Your task to perform on an android device: toggle notification dots Image 0: 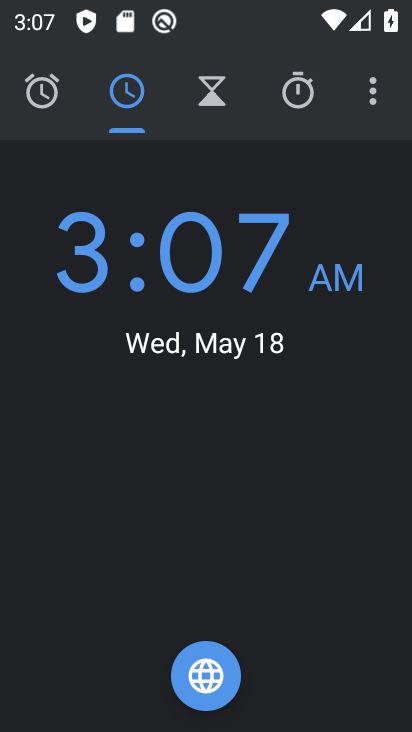
Step 0: press back button
Your task to perform on an android device: toggle notification dots Image 1: 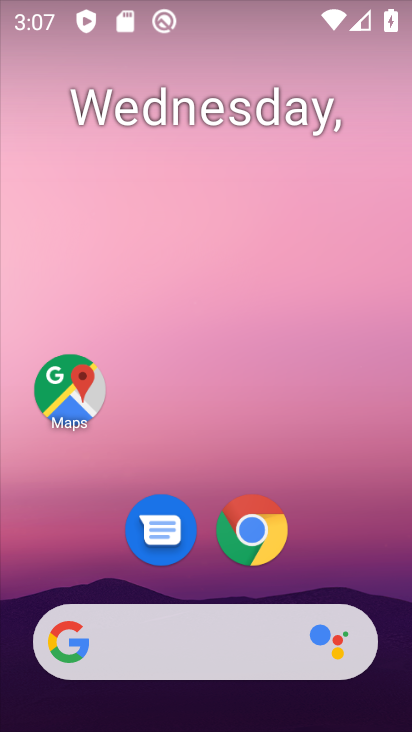
Step 1: click (243, 124)
Your task to perform on an android device: toggle notification dots Image 2: 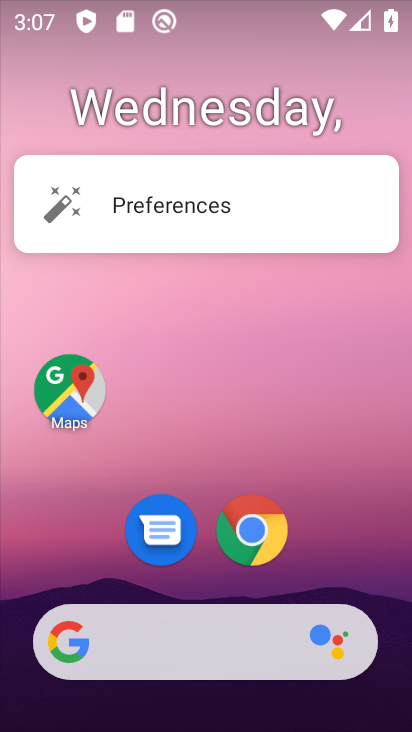
Step 2: drag from (235, 452) to (217, 192)
Your task to perform on an android device: toggle notification dots Image 3: 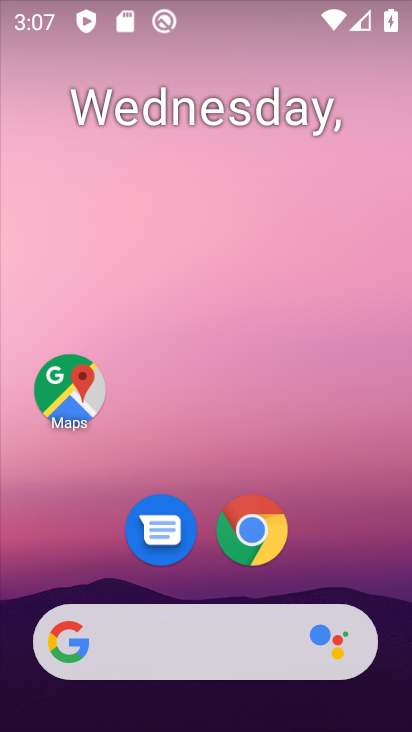
Step 3: drag from (271, 555) to (218, 220)
Your task to perform on an android device: toggle notification dots Image 4: 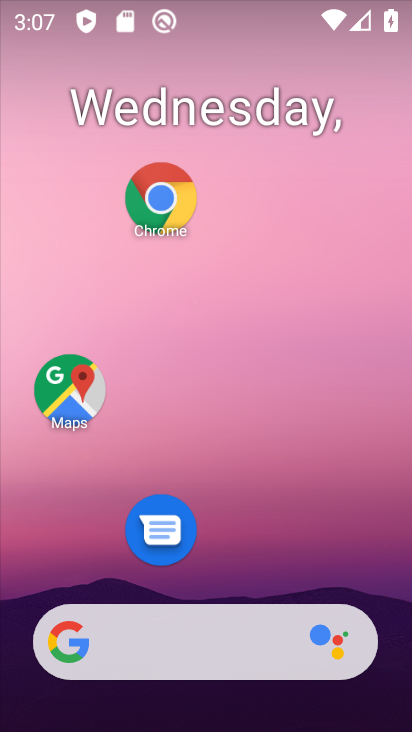
Step 4: drag from (279, 636) to (155, 28)
Your task to perform on an android device: toggle notification dots Image 5: 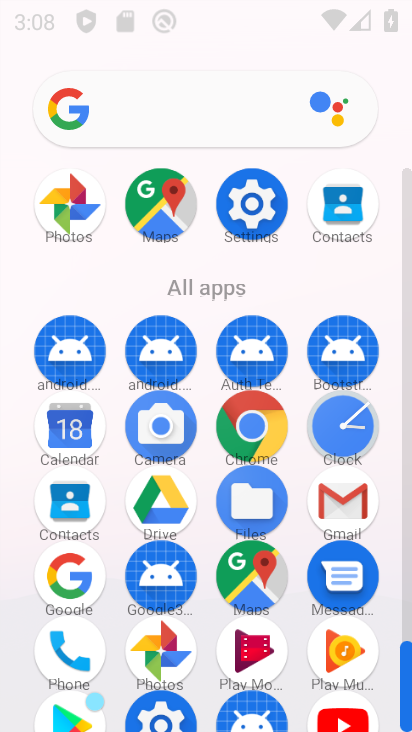
Step 5: drag from (168, 336) to (109, 120)
Your task to perform on an android device: toggle notification dots Image 6: 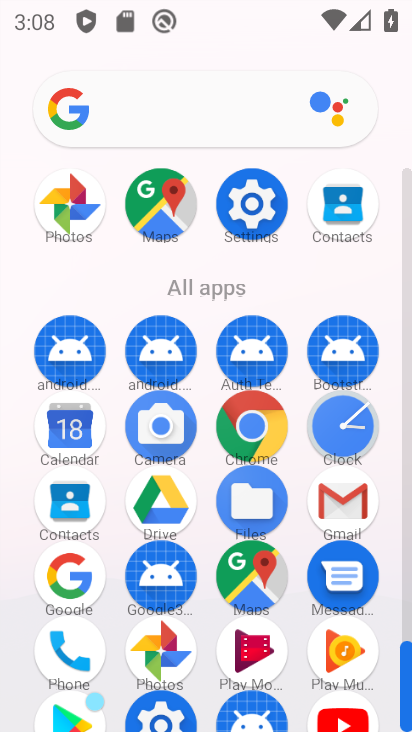
Step 6: click (247, 199)
Your task to perform on an android device: toggle notification dots Image 7: 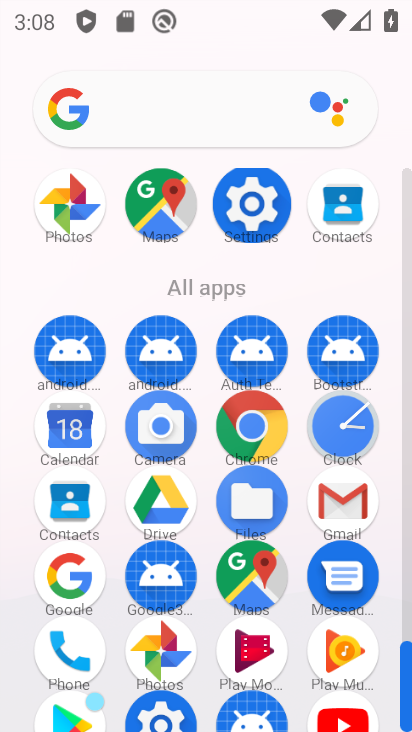
Step 7: click (249, 198)
Your task to perform on an android device: toggle notification dots Image 8: 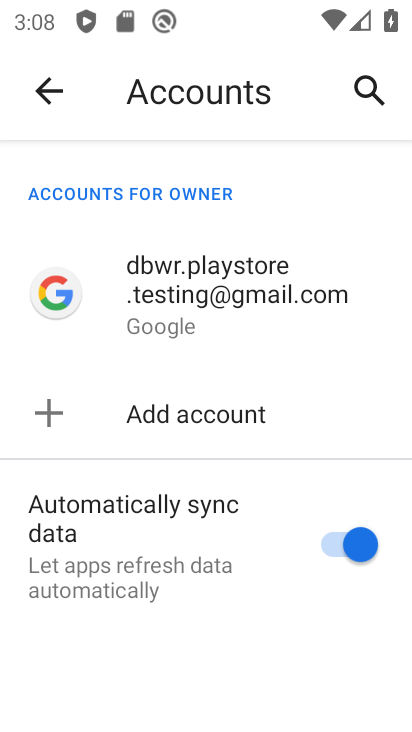
Step 8: click (249, 198)
Your task to perform on an android device: toggle notification dots Image 9: 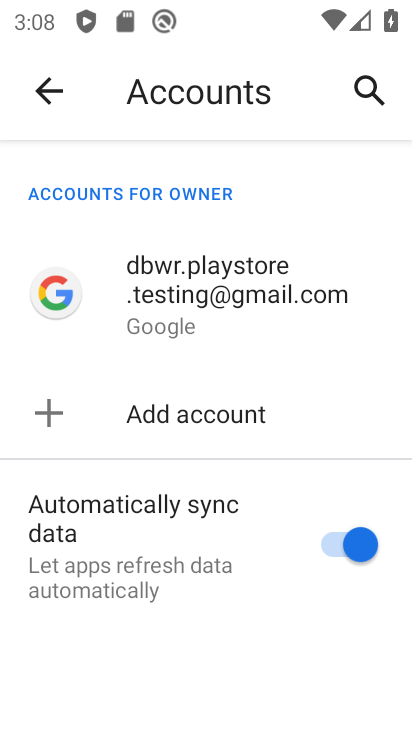
Step 9: click (31, 82)
Your task to perform on an android device: toggle notification dots Image 10: 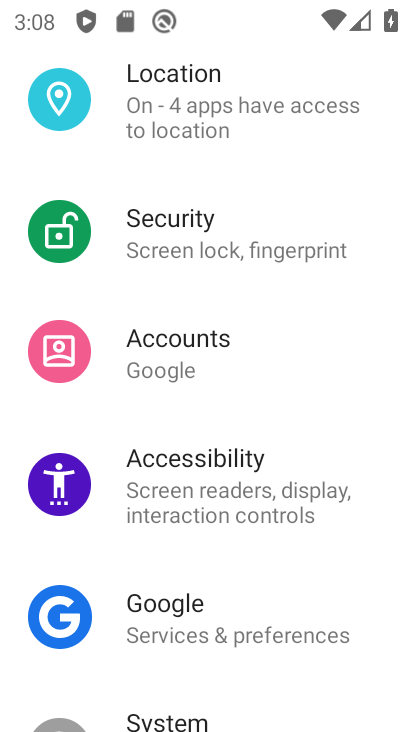
Step 10: drag from (201, 173) to (248, 474)
Your task to perform on an android device: toggle notification dots Image 11: 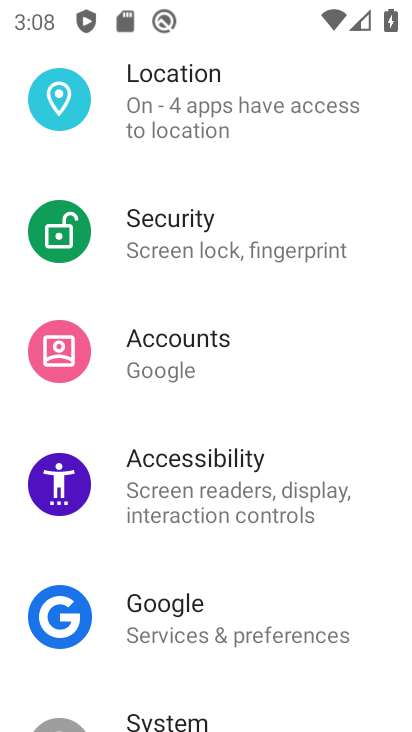
Step 11: drag from (235, 249) to (279, 553)
Your task to perform on an android device: toggle notification dots Image 12: 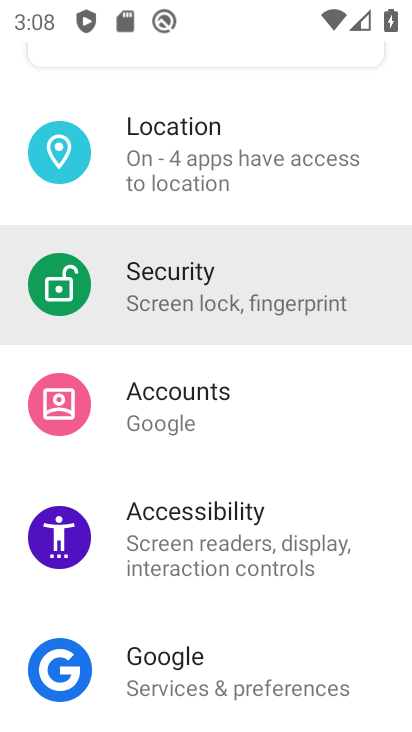
Step 12: drag from (225, 226) to (213, 592)
Your task to perform on an android device: toggle notification dots Image 13: 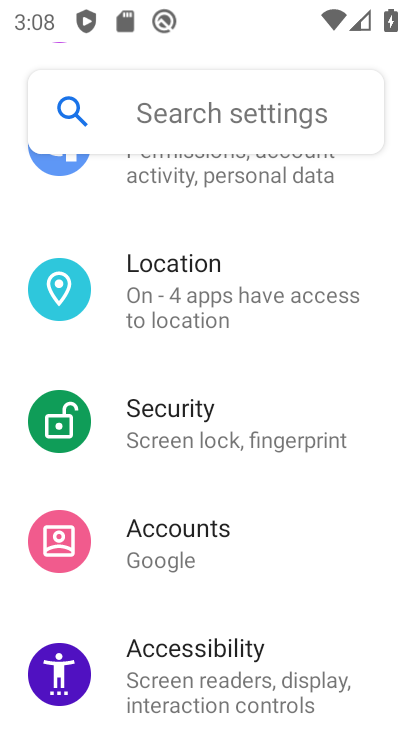
Step 13: drag from (185, 272) to (258, 514)
Your task to perform on an android device: toggle notification dots Image 14: 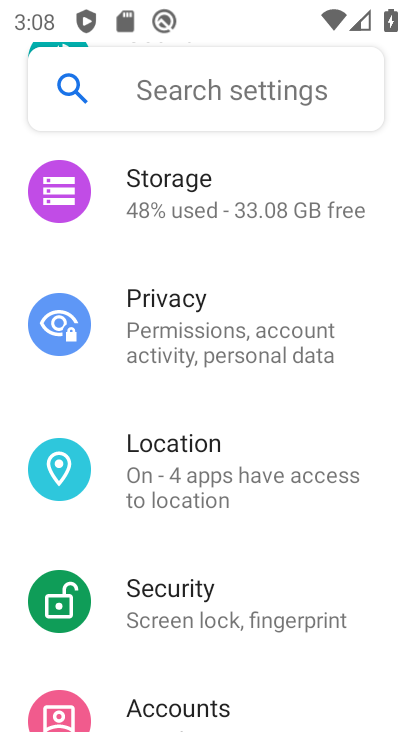
Step 14: drag from (239, 606) to (180, 665)
Your task to perform on an android device: toggle notification dots Image 15: 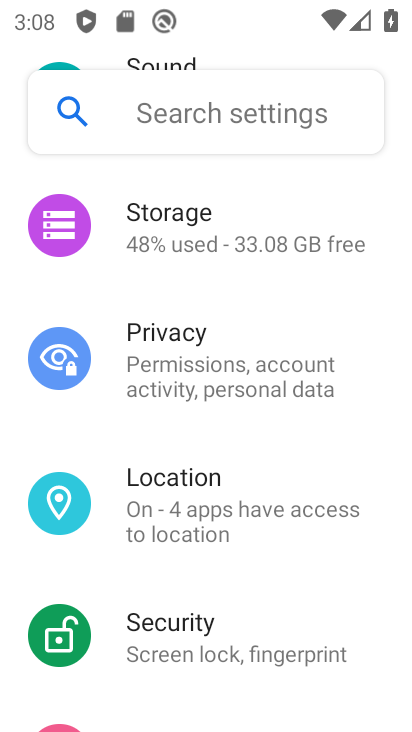
Step 15: drag from (200, 484) to (233, 635)
Your task to perform on an android device: toggle notification dots Image 16: 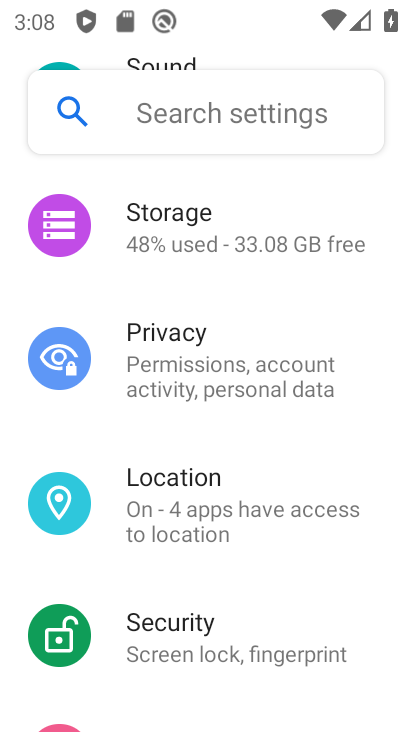
Step 16: drag from (209, 299) to (254, 611)
Your task to perform on an android device: toggle notification dots Image 17: 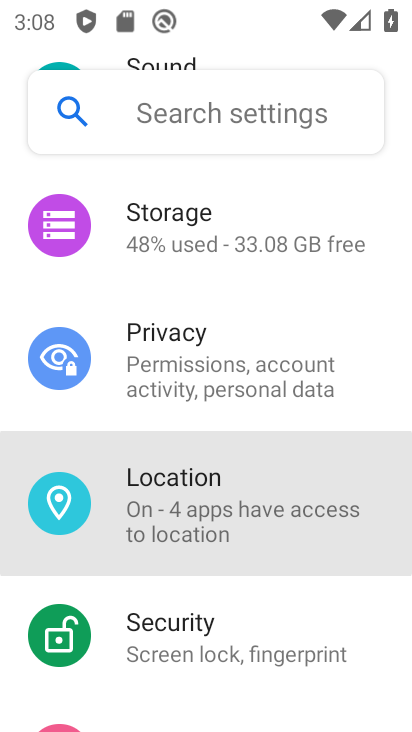
Step 17: drag from (247, 475) to (195, 488)
Your task to perform on an android device: toggle notification dots Image 18: 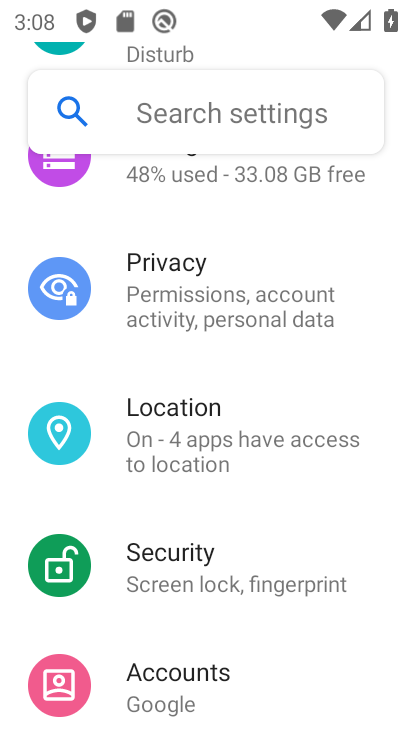
Step 18: drag from (220, 355) to (212, 525)
Your task to perform on an android device: toggle notification dots Image 19: 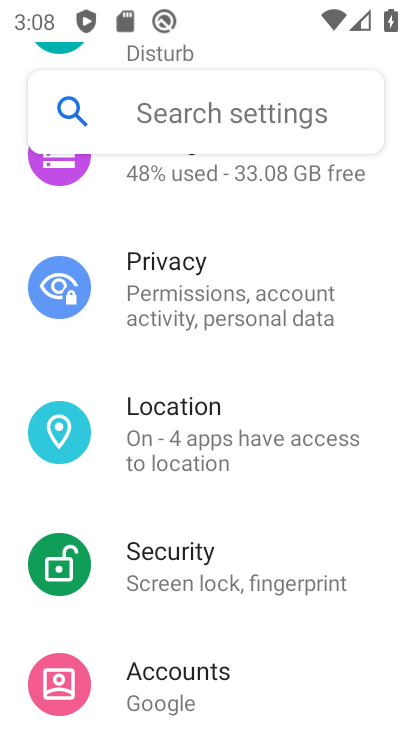
Step 19: drag from (148, 293) to (182, 626)
Your task to perform on an android device: toggle notification dots Image 20: 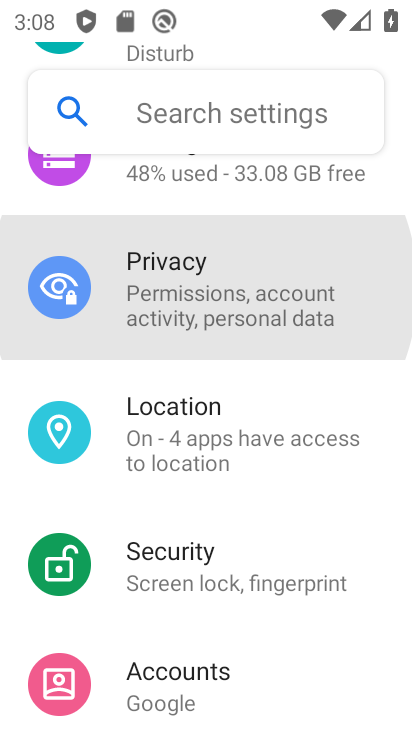
Step 20: drag from (141, 258) to (199, 642)
Your task to perform on an android device: toggle notification dots Image 21: 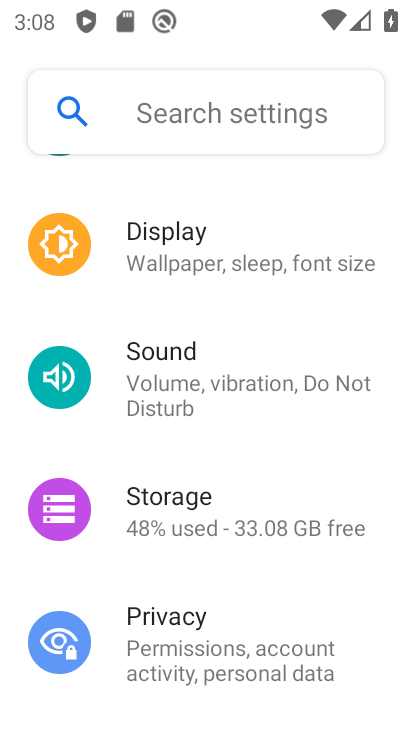
Step 21: drag from (177, 187) to (203, 662)
Your task to perform on an android device: toggle notification dots Image 22: 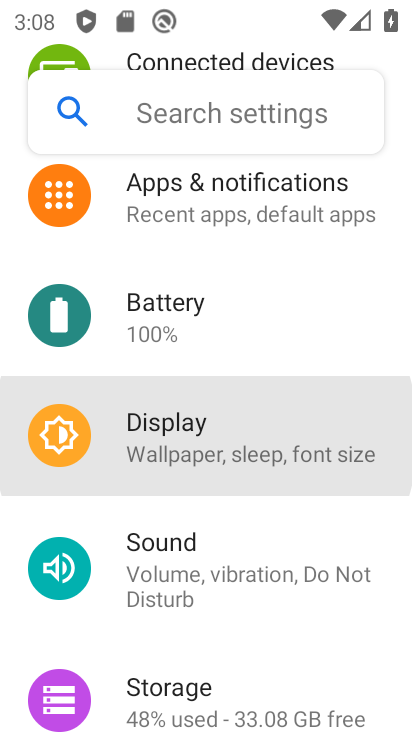
Step 22: drag from (200, 270) to (245, 660)
Your task to perform on an android device: toggle notification dots Image 23: 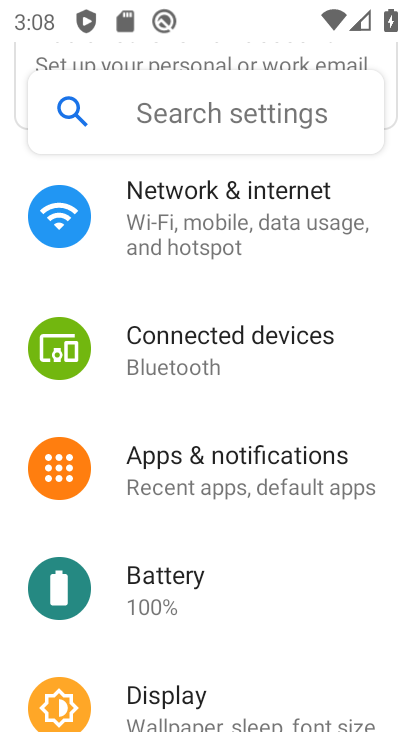
Step 23: click (198, 459)
Your task to perform on an android device: toggle notification dots Image 24: 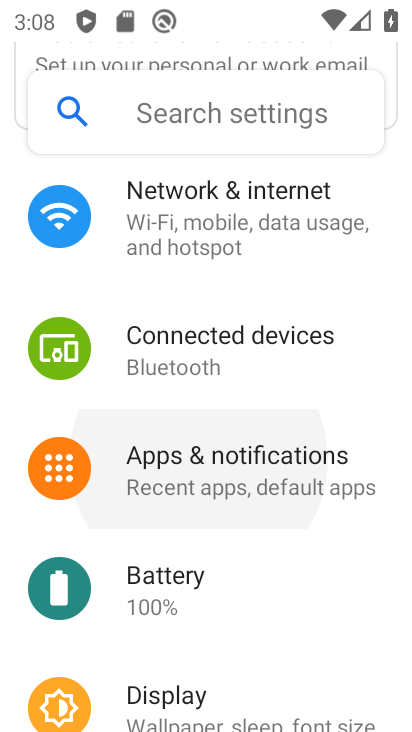
Step 24: click (205, 458)
Your task to perform on an android device: toggle notification dots Image 25: 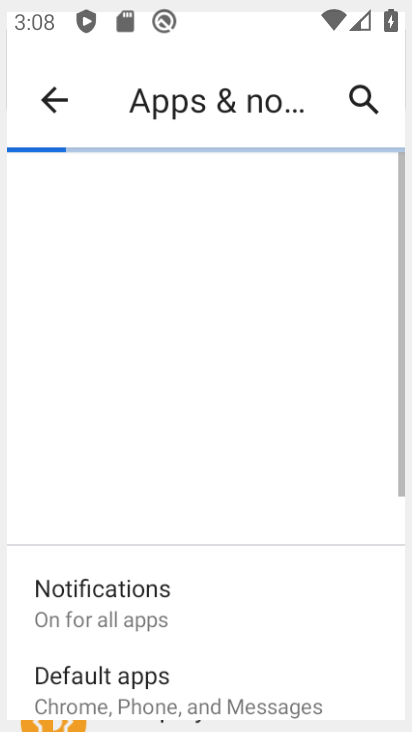
Step 25: click (206, 458)
Your task to perform on an android device: toggle notification dots Image 26: 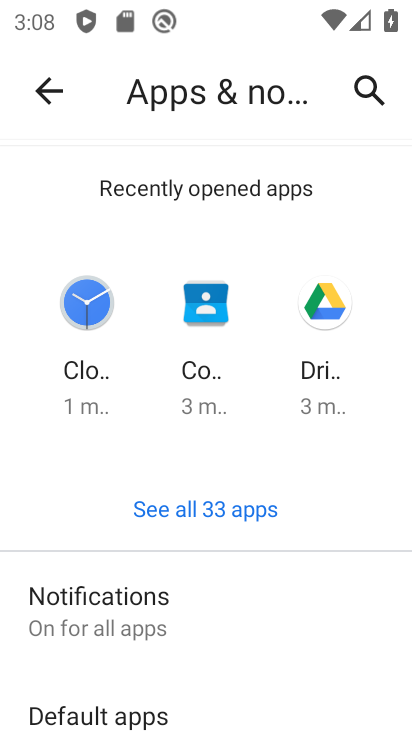
Step 26: drag from (97, 579) to (96, 616)
Your task to perform on an android device: toggle notification dots Image 27: 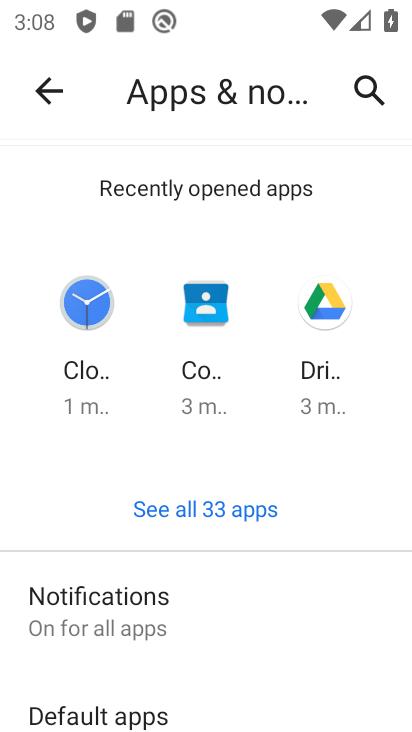
Step 27: click (96, 616)
Your task to perform on an android device: toggle notification dots Image 28: 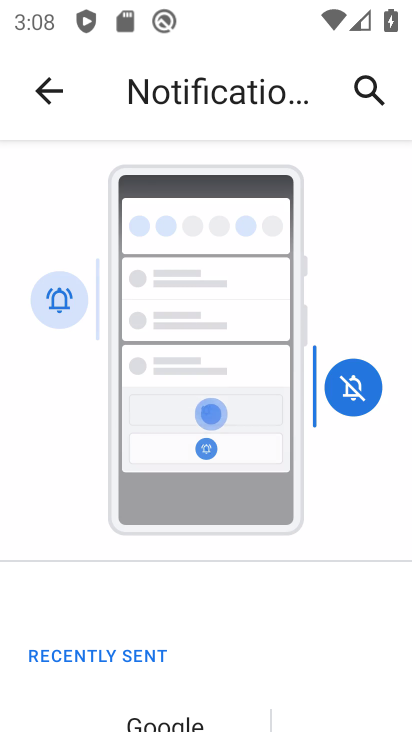
Step 28: drag from (224, 540) to (126, 63)
Your task to perform on an android device: toggle notification dots Image 29: 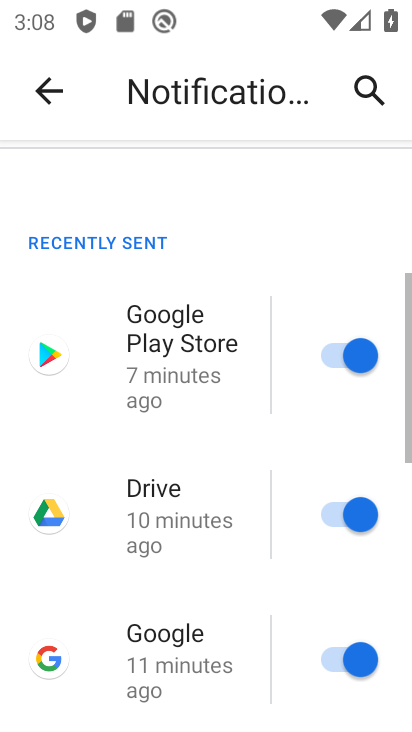
Step 29: drag from (211, 537) to (212, 217)
Your task to perform on an android device: toggle notification dots Image 30: 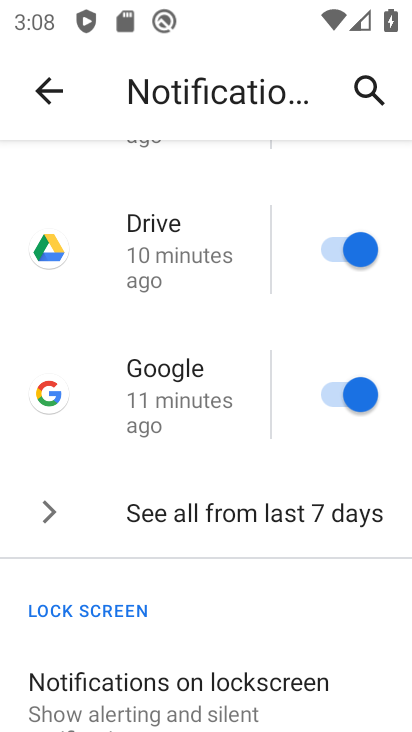
Step 30: drag from (232, 330) to (232, 170)
Your task to perform on an android device: toggle notification dots Image 31: 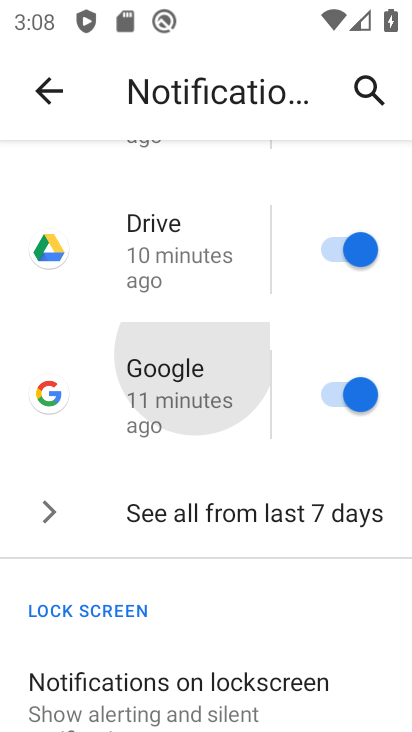
Step 31: click (224, 165)
Your task to perform on an android device: toggle notification dots Image 32: 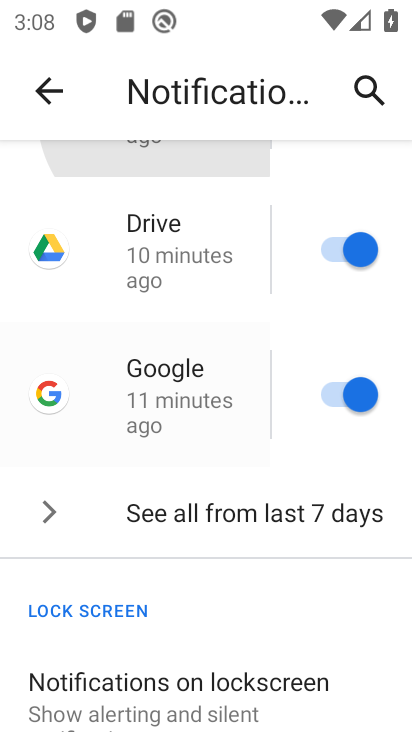
Step 32: drag from (249, 548) to (228, 139)
Your task to perform on an android device: toggle notification dots Image 33: 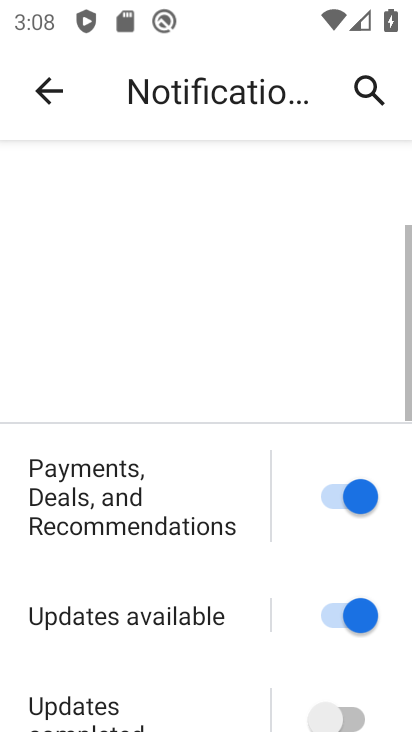
Step 33: click (133, 141)
Your task to perform on an android device: toggle notification dots Image 34: 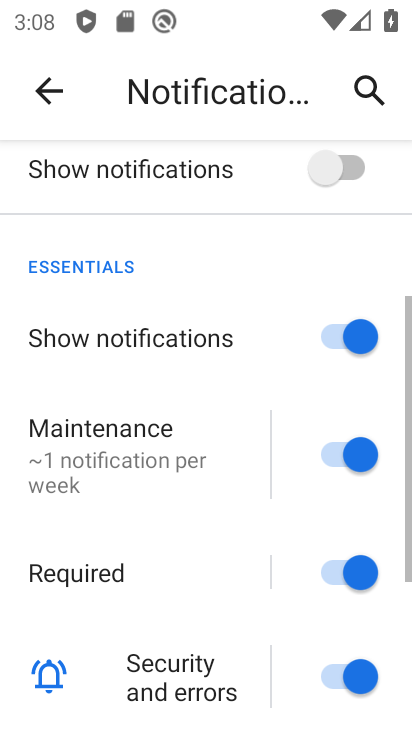
Step 34: drag from (280, 492) to (178, 30)
Your task to perform on an android device: toggle notification dots Image 35: 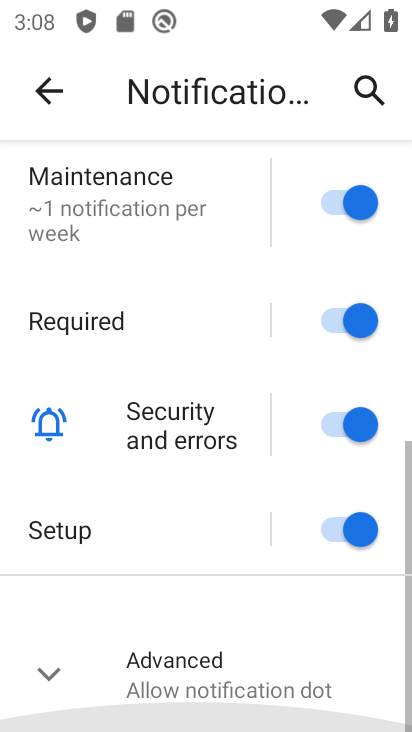
Step 35: drag from (213, 441) to (90, 84)
Your task to perform on an android device: toggle notification dots Image 36: 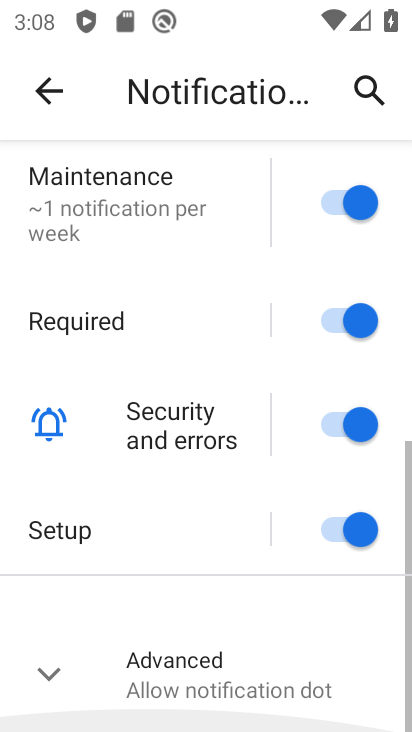
Step 36: drag from (168, 173) to (160, 59)
Your task to perform on an android device: toggle notification dots Image 37: 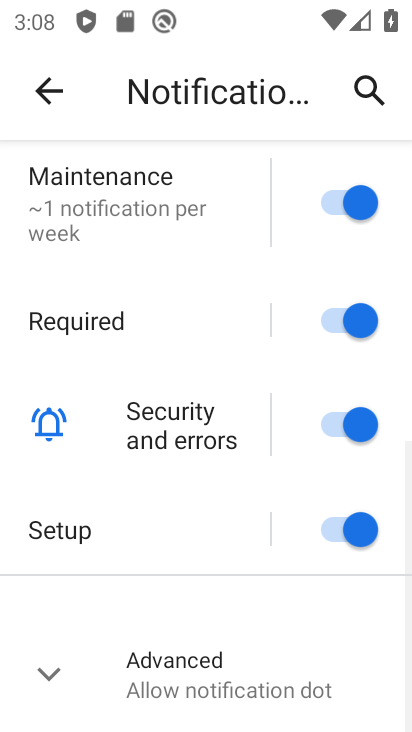
Step 37: drag from (185, 434) to (156, 8)
Your task to perform on an android device: toggle notification dots Image 38: 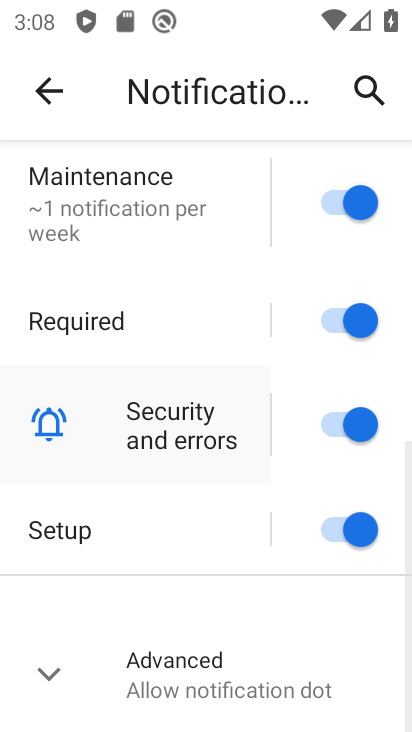
Step 38: drag from (188, 487) to (197, 183)
Your task to perform on an android device: toggle notification dots Image 39: 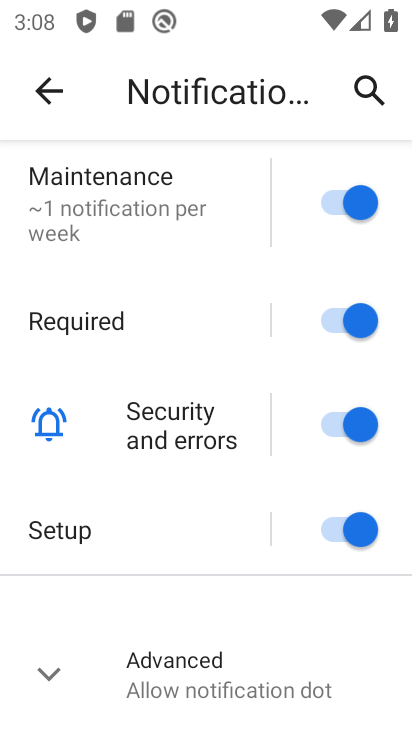
Step 39: click (206, 685)
Your task to perform on an android device: toggle notification dots Image 40: 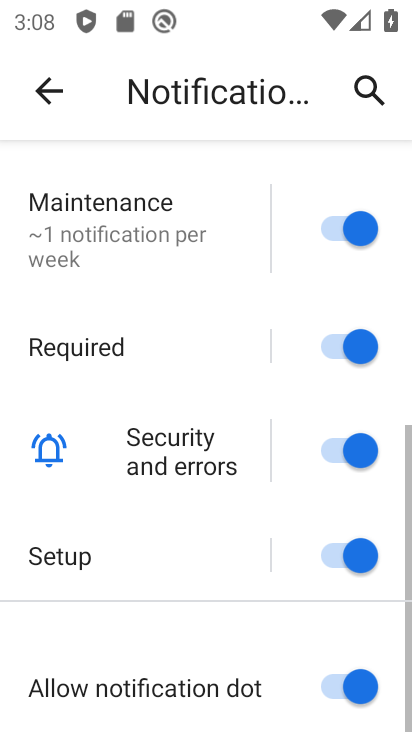
Step 40: drag from (212, 610) to (192, 121)
Your task to perform on an android device: toggle notification dots Image 41: 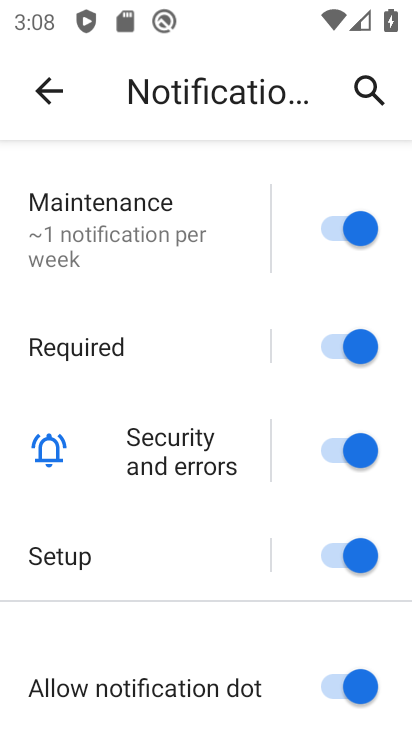
Step 41: click (351, 689)
Your task to perform on an android device: toggle notification dots Image 42: 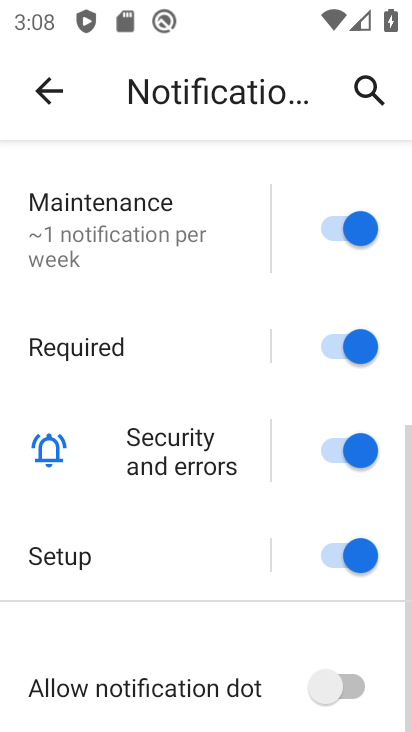
Step 42: task complete